Your task to perform on an android device: Go to Amazon Image 0: 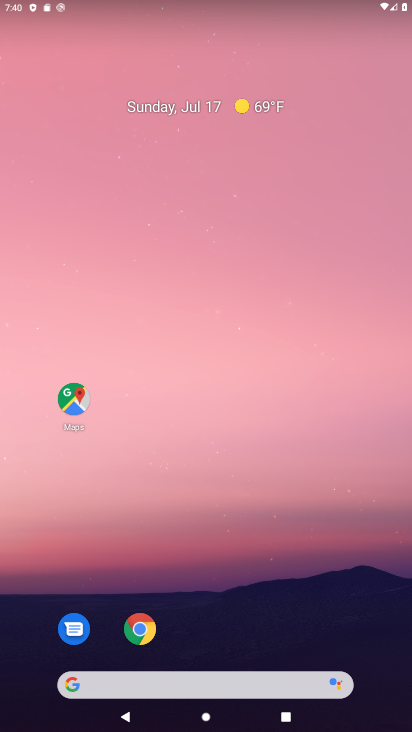
Step 0: drag from (173, 651) to (167, 159)
Your task to perform on an android device: Go to Amazon Image 1: 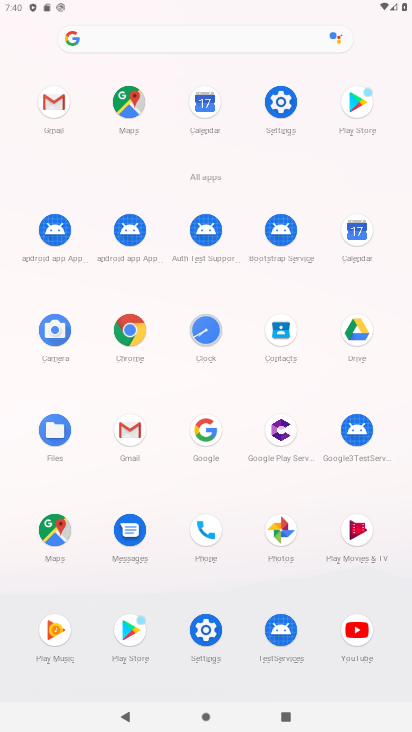
Step 1: click (130, 333)
Your task to perform on an android device: Go to Amazon Image 2: 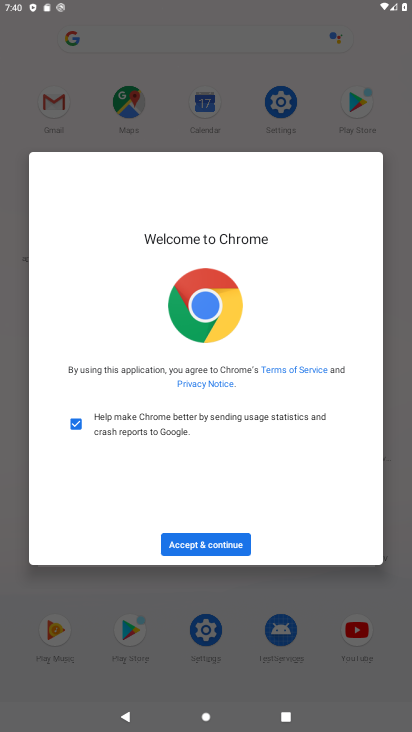
Step 2: click (225, 554)
Your task to perform on an android device: Go to Amazon Image 3: 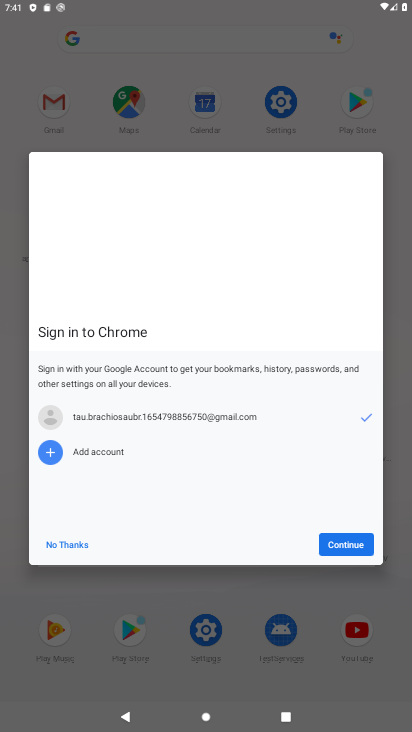
Step 3: click (350, 550)
Your task to perform on an android device: Go to Amazon Image 4: 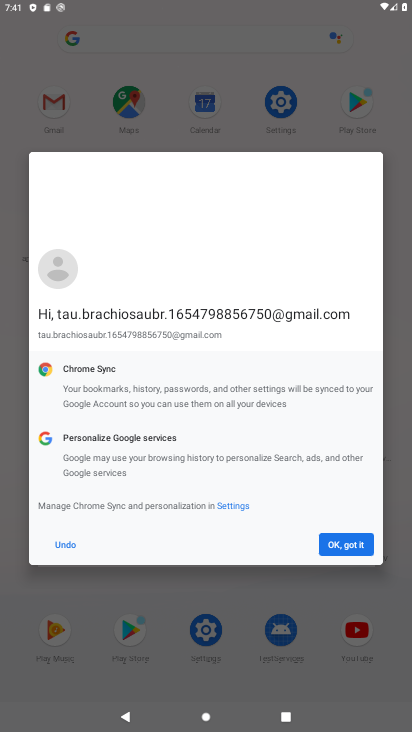
Step 4: click (350, 550)
Your task to perform on an android device: Go to Amazon Image 5: 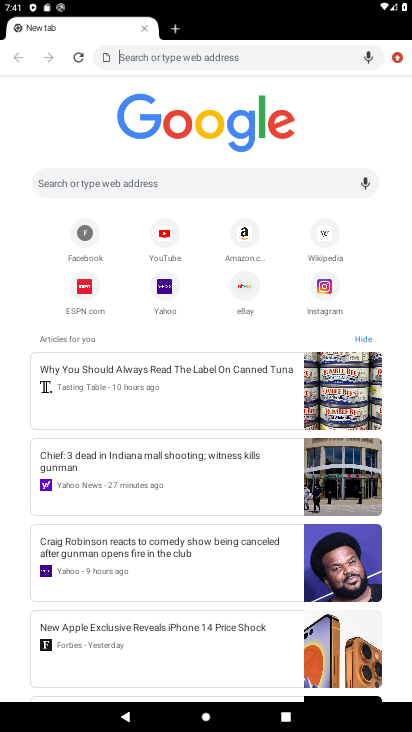
Step 5: click (242, 230)
Your task to perform on an android device: Go to Amazon Image 6: 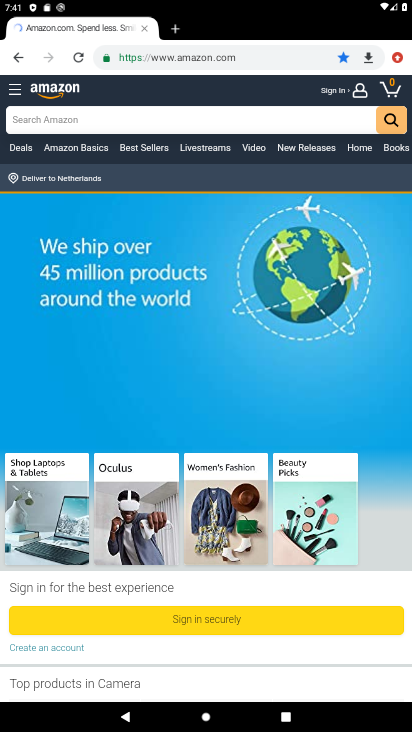
Step 6: task complete